Your task to perform on an android device: Open notification settings Image 0: 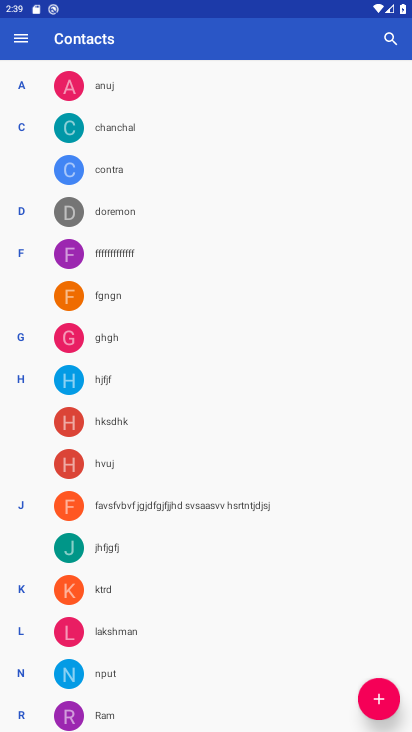
Step 0: press home button
Your task to perform on an android device: Open notification settings Image 1: 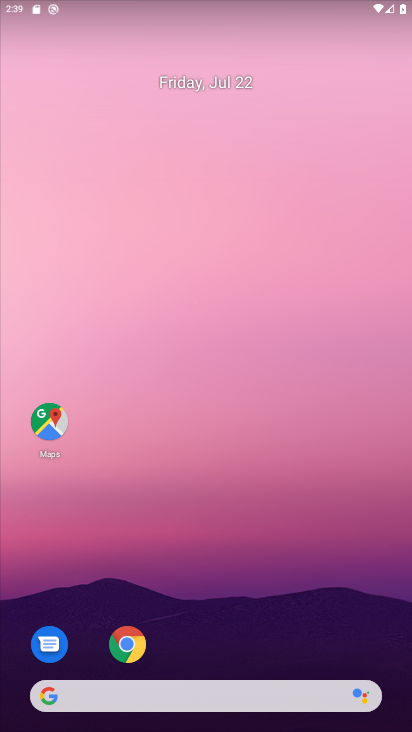
Step 1: drag from (231, 623) to (262, 206)
Your task to perform on an android device: Open notification settings Image 2: 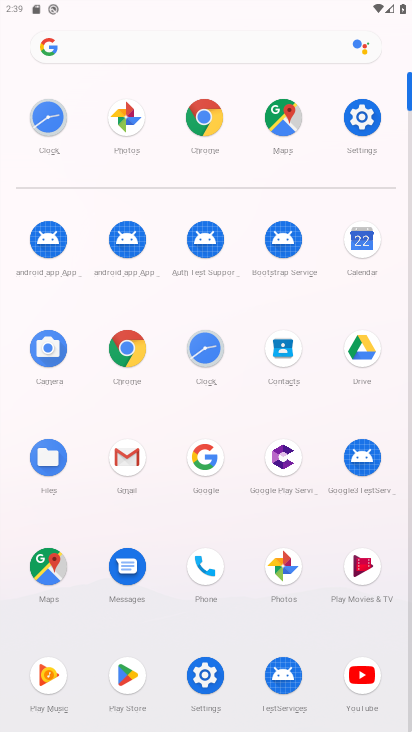
Step 2: click (374, 114)
Your task to perform on an android device: Open notification settings Image 3: 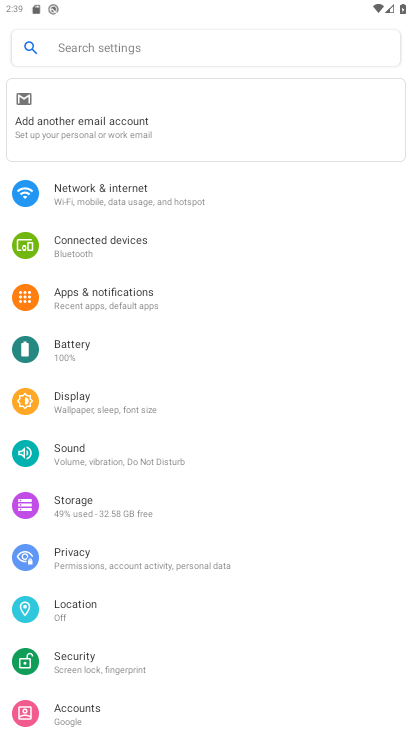
Step 3: click (105, 290)
Your task to perform on an android device: Open notification settings Image 4: 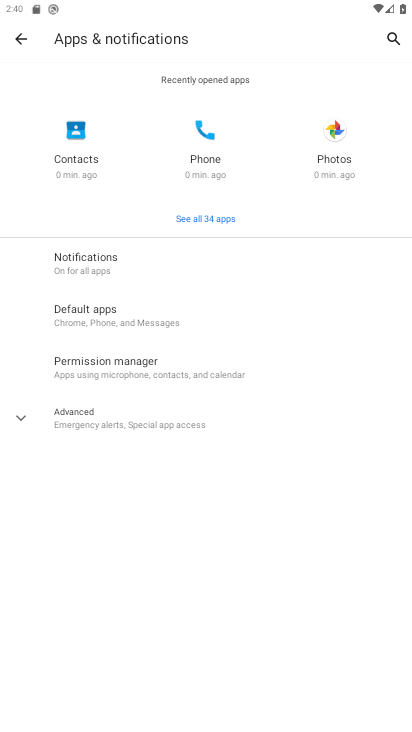
Step 4: task complete